Your task to perform on an android device: Open Yahoo.com Image 0: 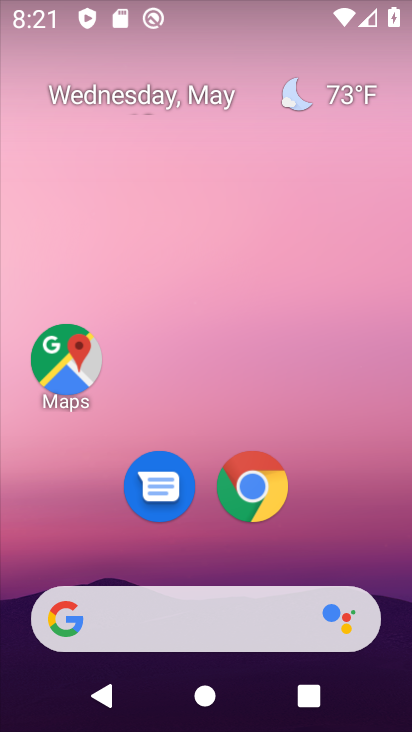
Step 0: click (256, 490)
Your task to perform on an android device: Open Yahoo.com Image 1: 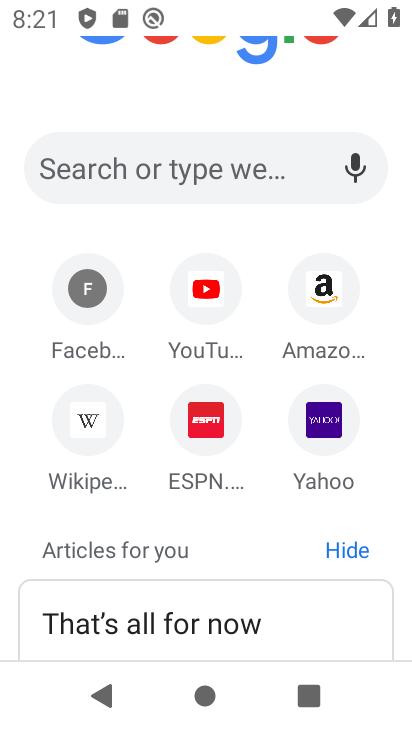
Step 1: click (90, 164)
Your task to perform on an android device: Open Yahoo.com Image 2: 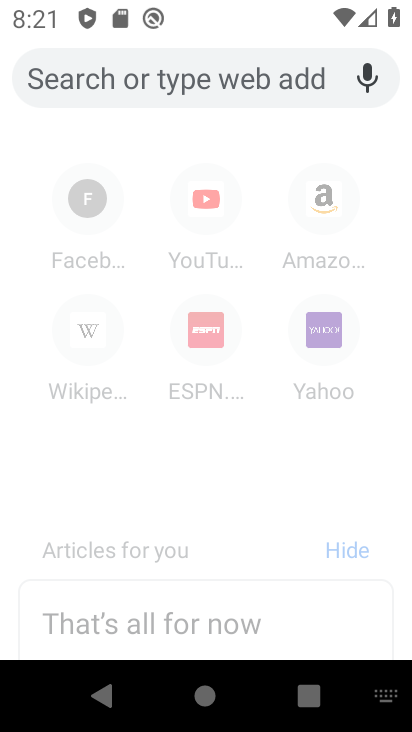
Step 2: type "yahoo.com"
Your task to perform on an android device: Open Yahoo.com Image 3: 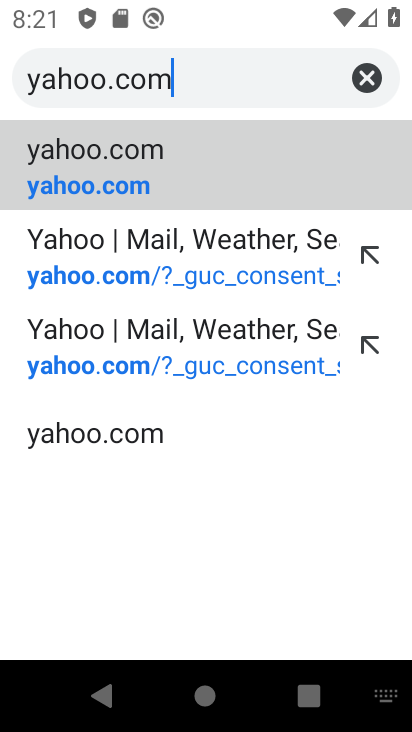
Step 3: click (78, 153)
Your task to perform on an android device: Open Yahoo.com Image 4: 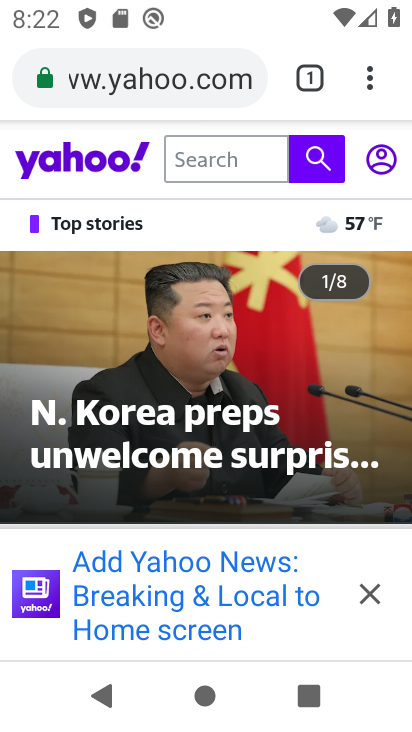
Step 4: task complete